Your task to perform on an android device: Open Youtube and go to "Your channel" Image 0: 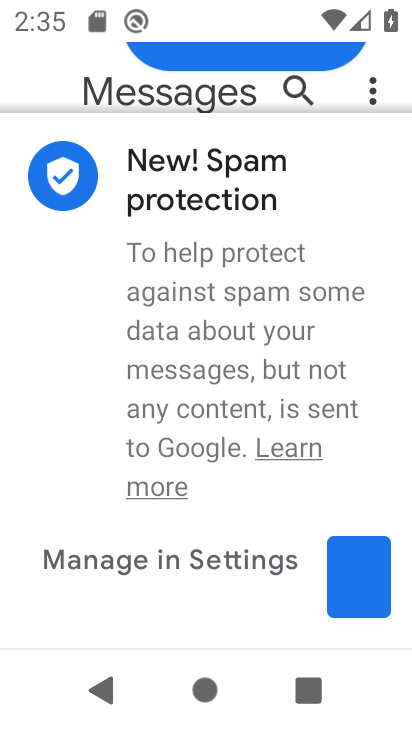
Step 0: drag from (212, 515) to (220, 244)
Your task to perform on an android device: Open Youtube and go to "Your channel" Image 1: 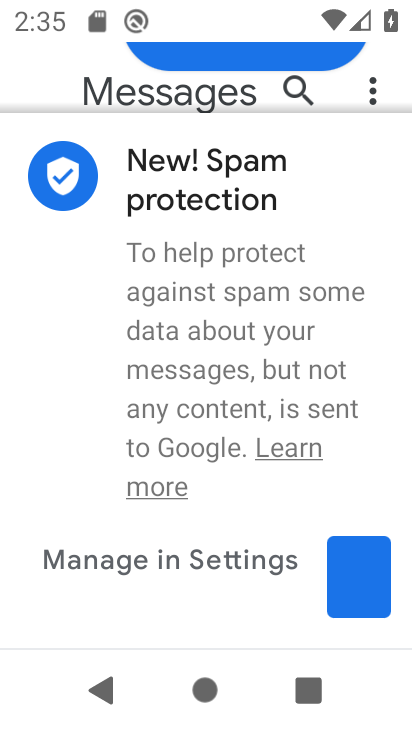
Step 1: press home button
Your task to perform on an android device: Open Youtube and go to "Your channel" Image 2: 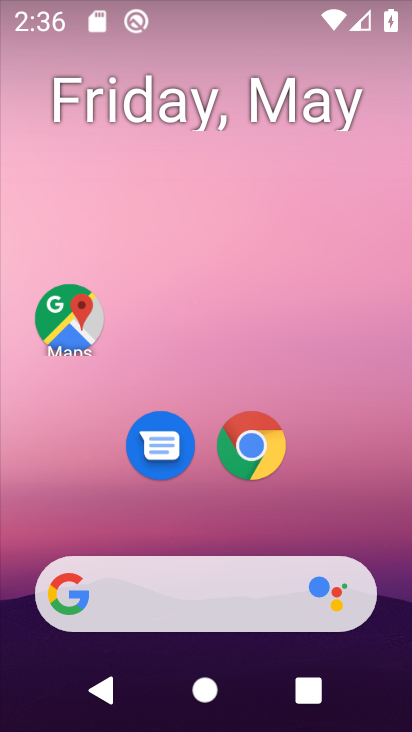
Step 2: drag from (208, 524) to (204, 320)
Your task to perform on an android device: Open Youtube and go to "Your channel" Image 3: 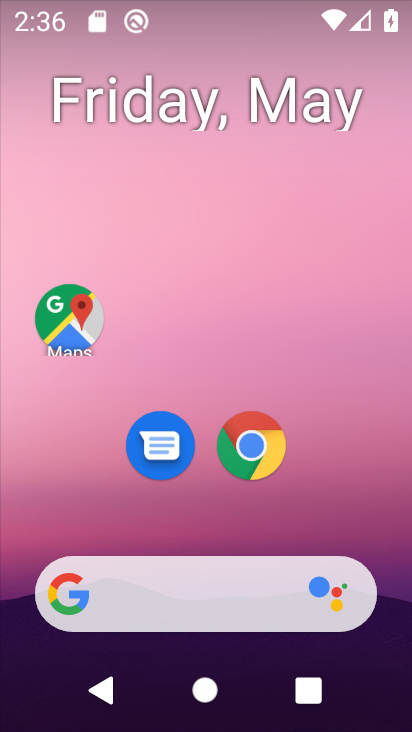
Step 3: drag from (206, 518) to (276, 56)
Your task to perform on an android device: Open Youtube and go to "Your channel" Image 4: 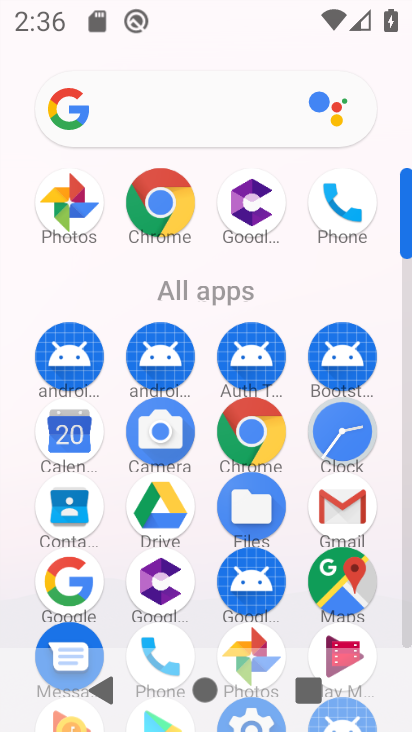
Step 4: drag from (207, 621) to (241, 304)
Your task to perform on an android device: Open Youtube and go to "Your channel" Image 5: 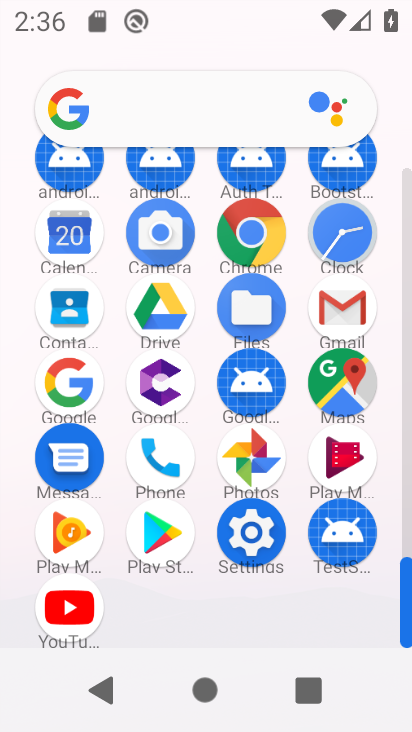
Step 5: click (55, 607)
Your task to perform on an android device: Open Youtube and go to "Your channel" Image 6: 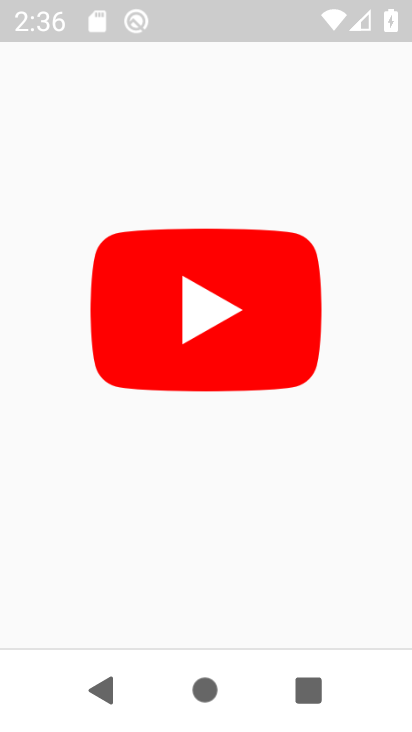
Step 6: drag from (237, 507) to (294, 250)
Your task to perform on an android device: Open Youtube and go to "Your channel" Image 7: 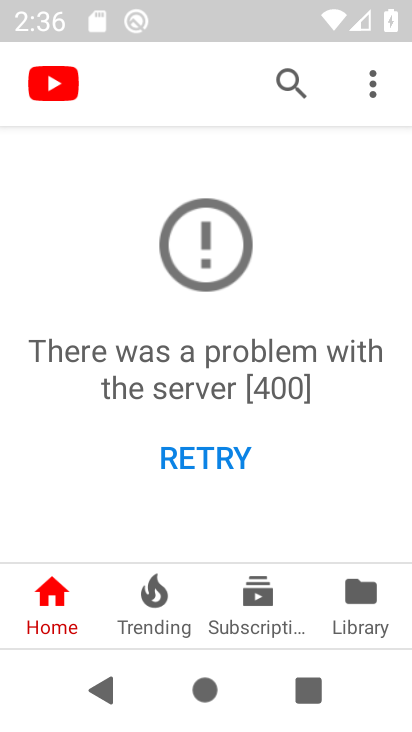
Step 7: drag from (209, 506) to (231, 203)
Your task to perform on an android device: Open Youtube and go to "Your channel" Image 8: 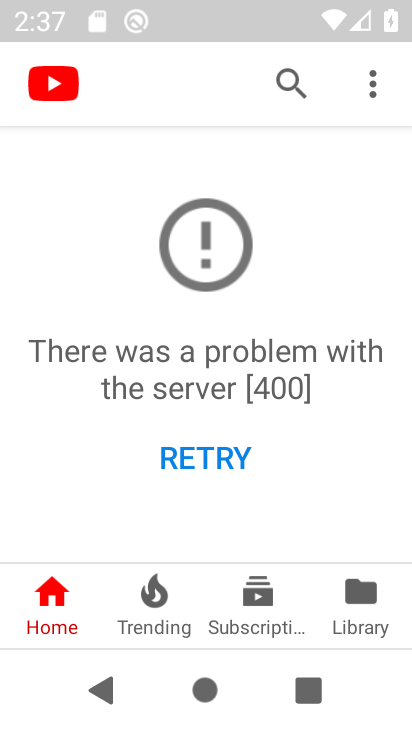
Step 8: drag from (198, 539) to (209, 332)
Your task to perform on an android device: Open Youtube and go to "Your channel" Image 9: 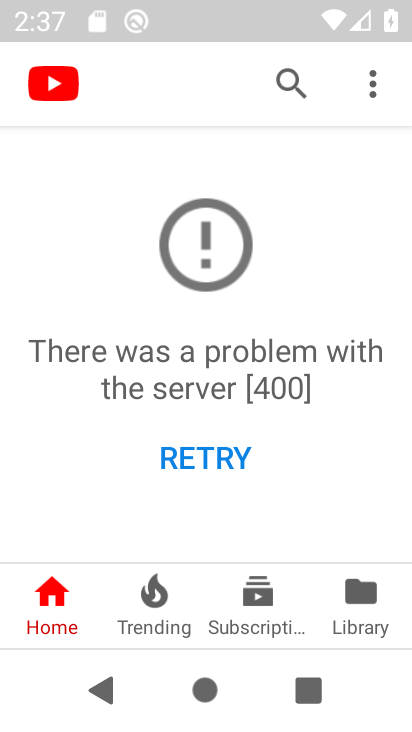
Step 9: click (303, 494)
Your task to perform on an android device: Open Youtube and go to "Your channel" Image 10: 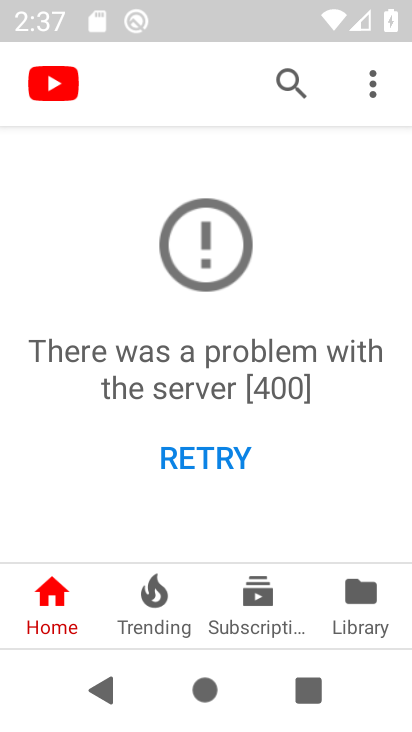
Step 10: task complete